Your task to perform on an android device: Empty the shopping cart on walmart. Search for "usb-c to usb-a" on walmart, select the first entry, add it to the cart, then select checkout. Image 0: 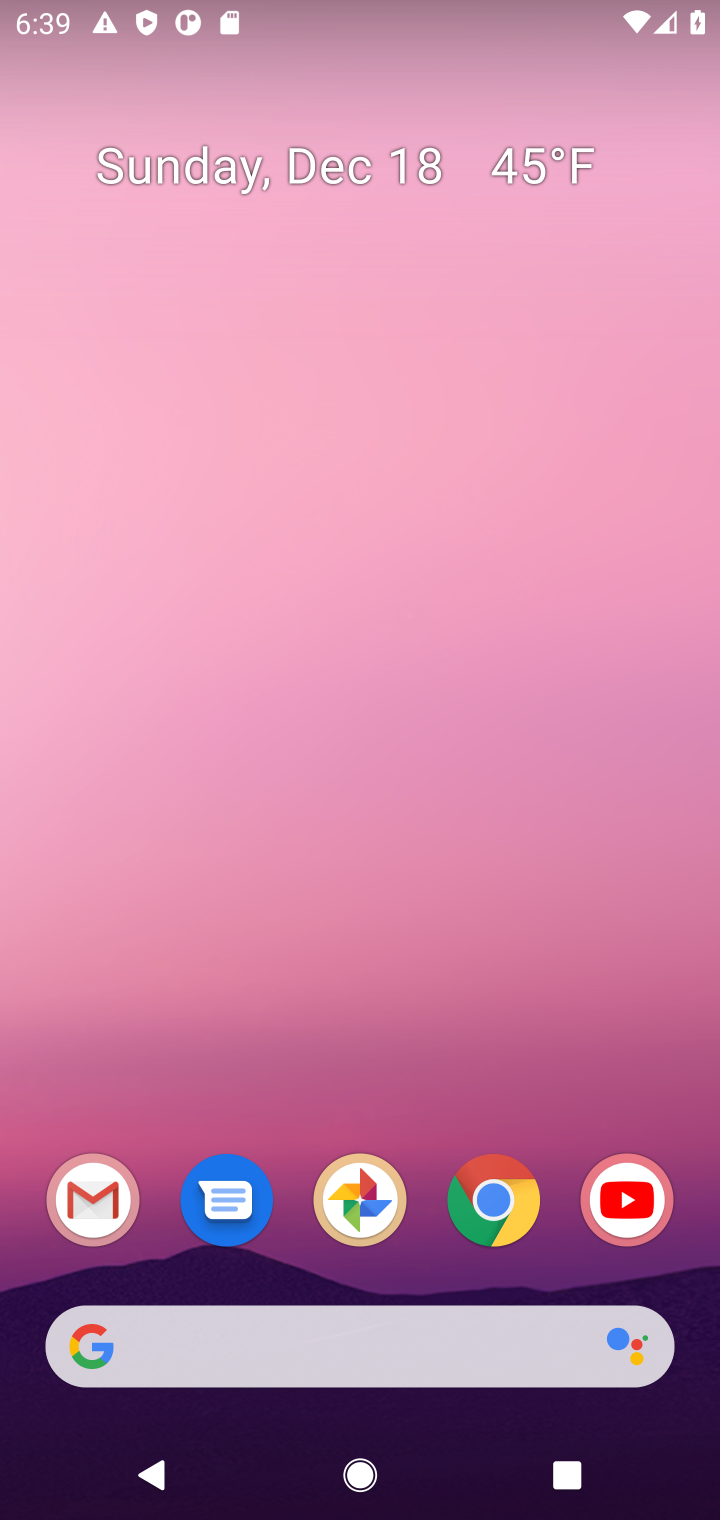
Step 0: click (499, 1207)
Your task to perform on an android device: Empty the shopping cart on walmart. Search for "usb-c to usb-a" on walmart, select the first entry, add it to the cart, then select checkout. Image 1: 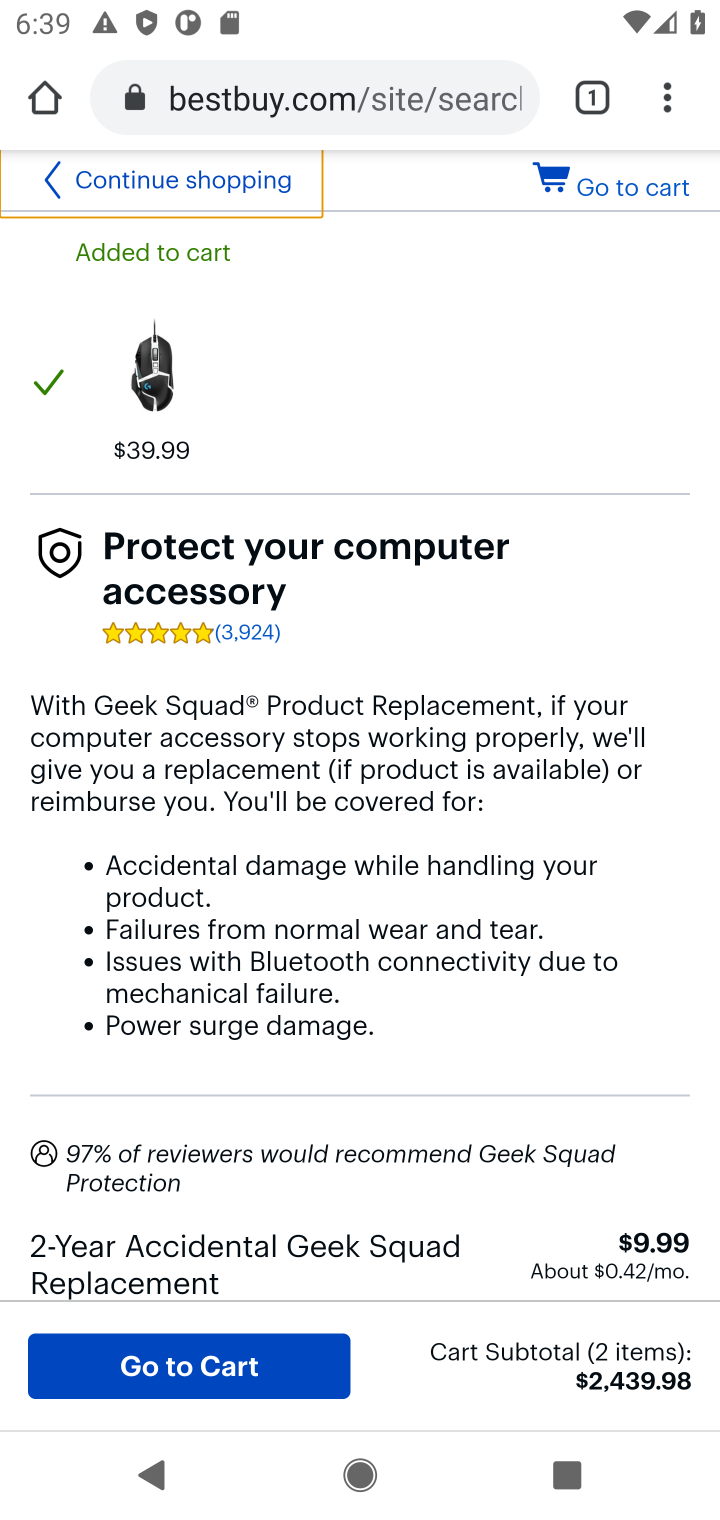
Step 1: click (240, 100)
Your task to perform on an android device: Empty the shopping cart on walmart. Search for "usb-c to usb-a" on walmart, select the first entry, add it to the cart, then select checkout. Image 2: 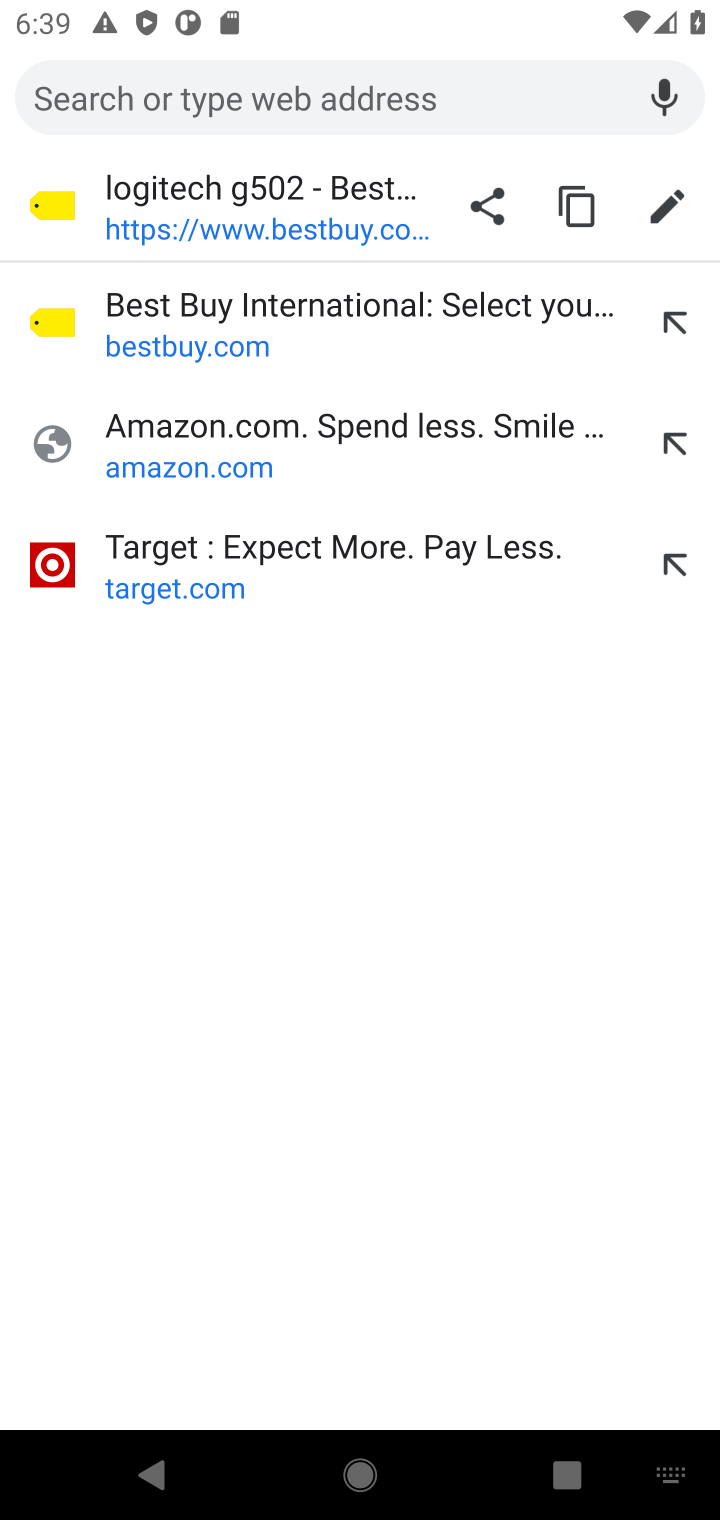
Step 2: type "walmart.com"
Your task to perform on an android device: Empty the shopping cart on walmart. Search for "usb-c to usb-a" on walmart, select the first entry, add it to the cart, then select checkout. Image 3: 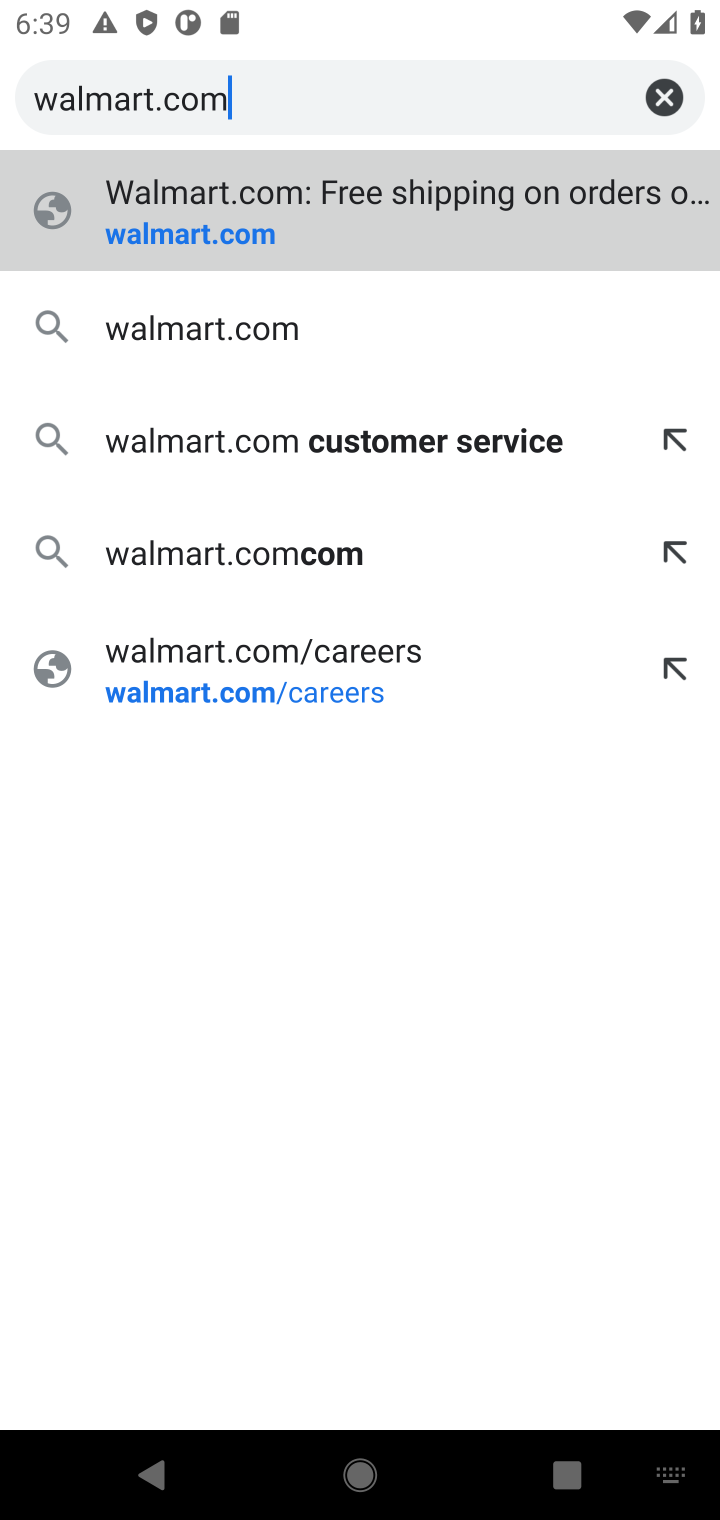
Step 3: click (134, 244)
Your task to perform on an android device: Empty the shopping cart on walmart. Search for "usb-c to usb-a" on walmart, select the first entry, add it to the cart, then select checkout. Image 4: 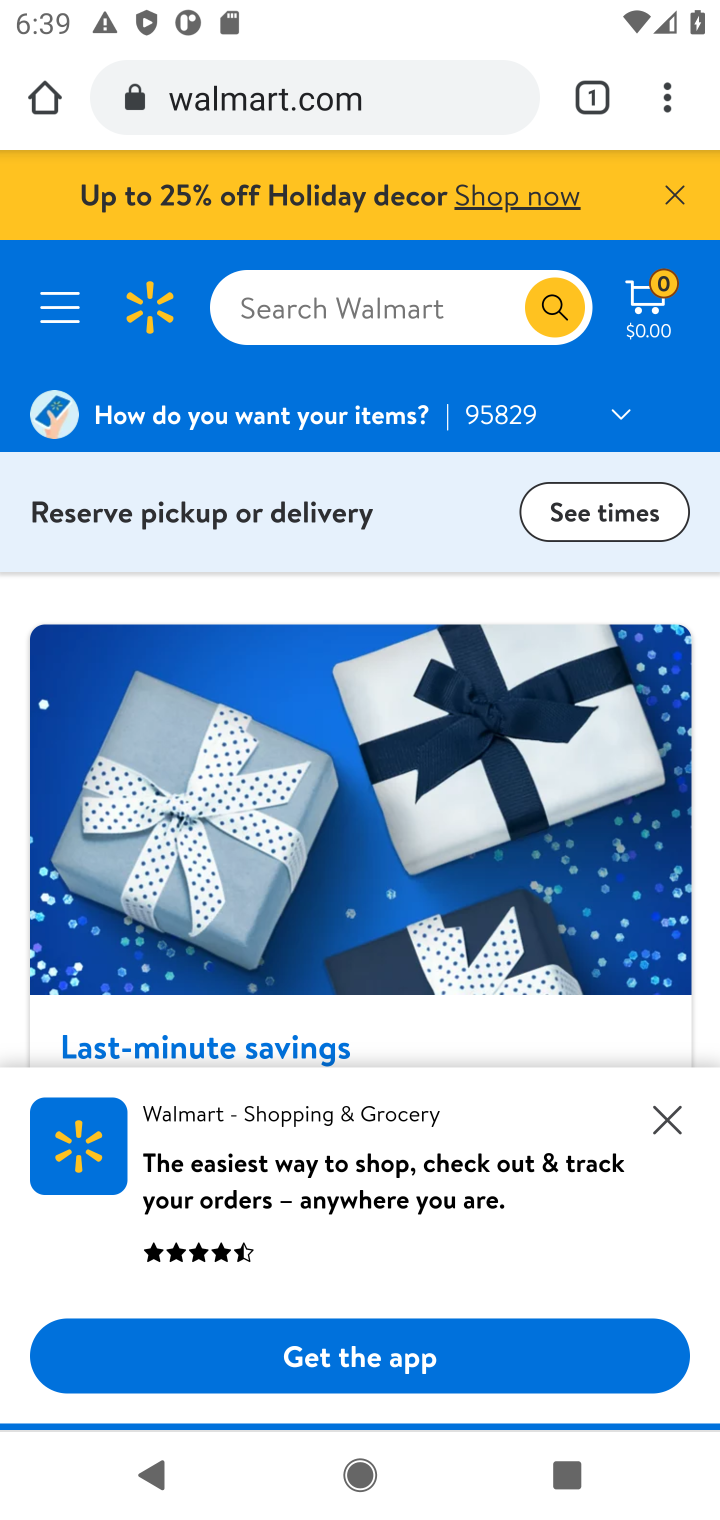
Step 4: click (645, 314)
Your task to perform on an android device: Empty the shopping cart on walmart. Search for "usb-c to usb-a" on walmart, select the first entry, add it to the cart, then select checkout. Image 5: 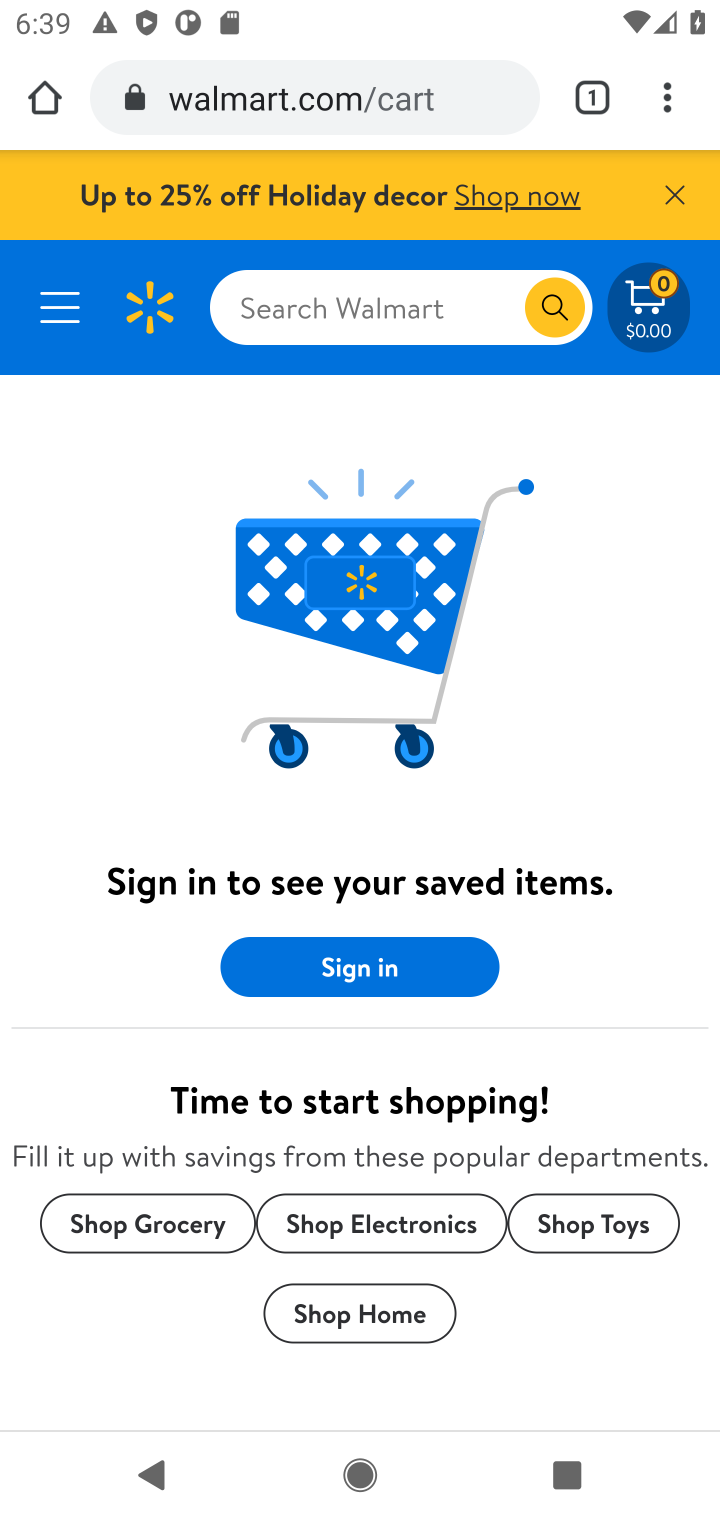
Step 5: click (275, 307)
Your task to perform on an android device: Empty the shopping cart on walmart. Search for "usb-c to usb-a" on walmart, select the first entry, add it to the cart, then select checkout. Image 6: 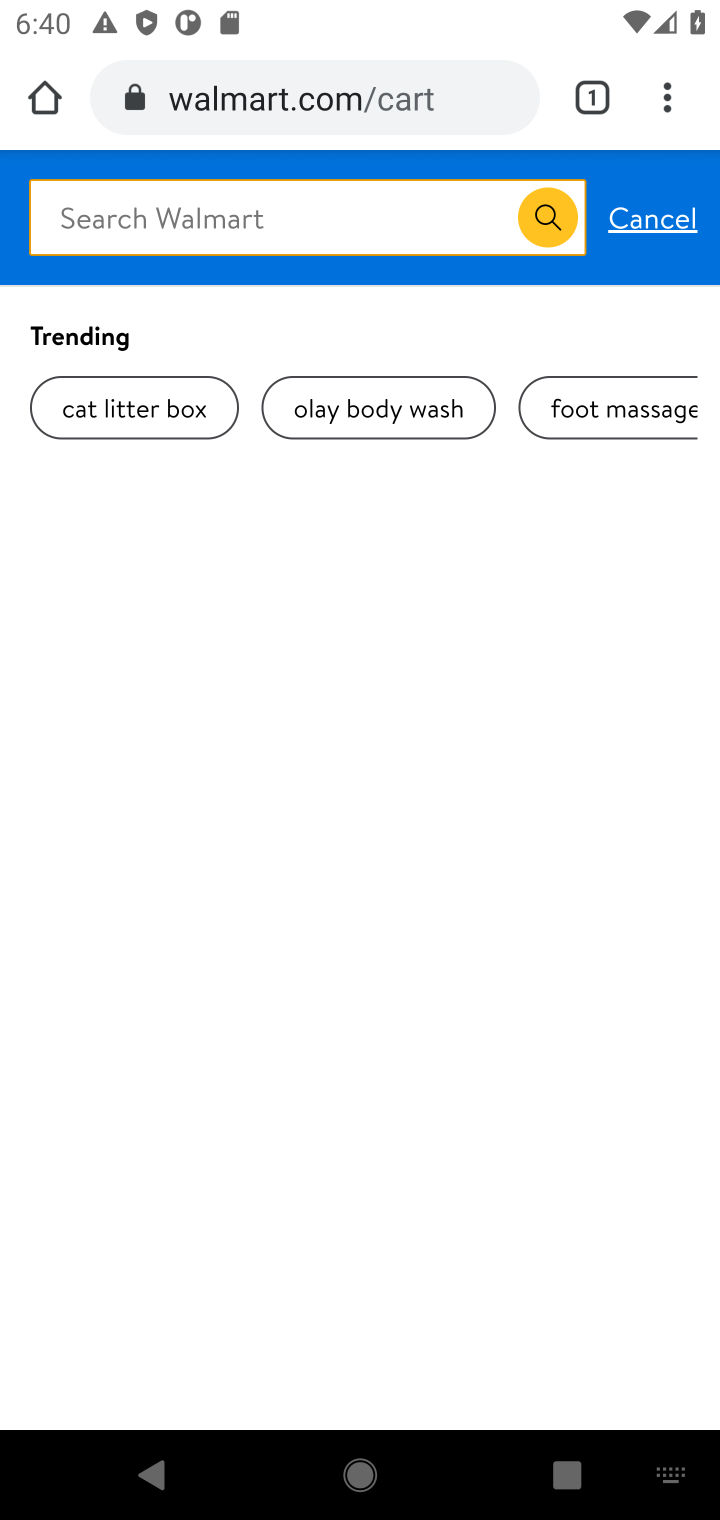
Step 6: type "usb-c to usb-a"
Your task to perform on an android device: Empty the shopping cart on walmart. Search for "usb-c to usb-a" on walmart, select the first entry, add it to the cart, then select checkout. Image 7: 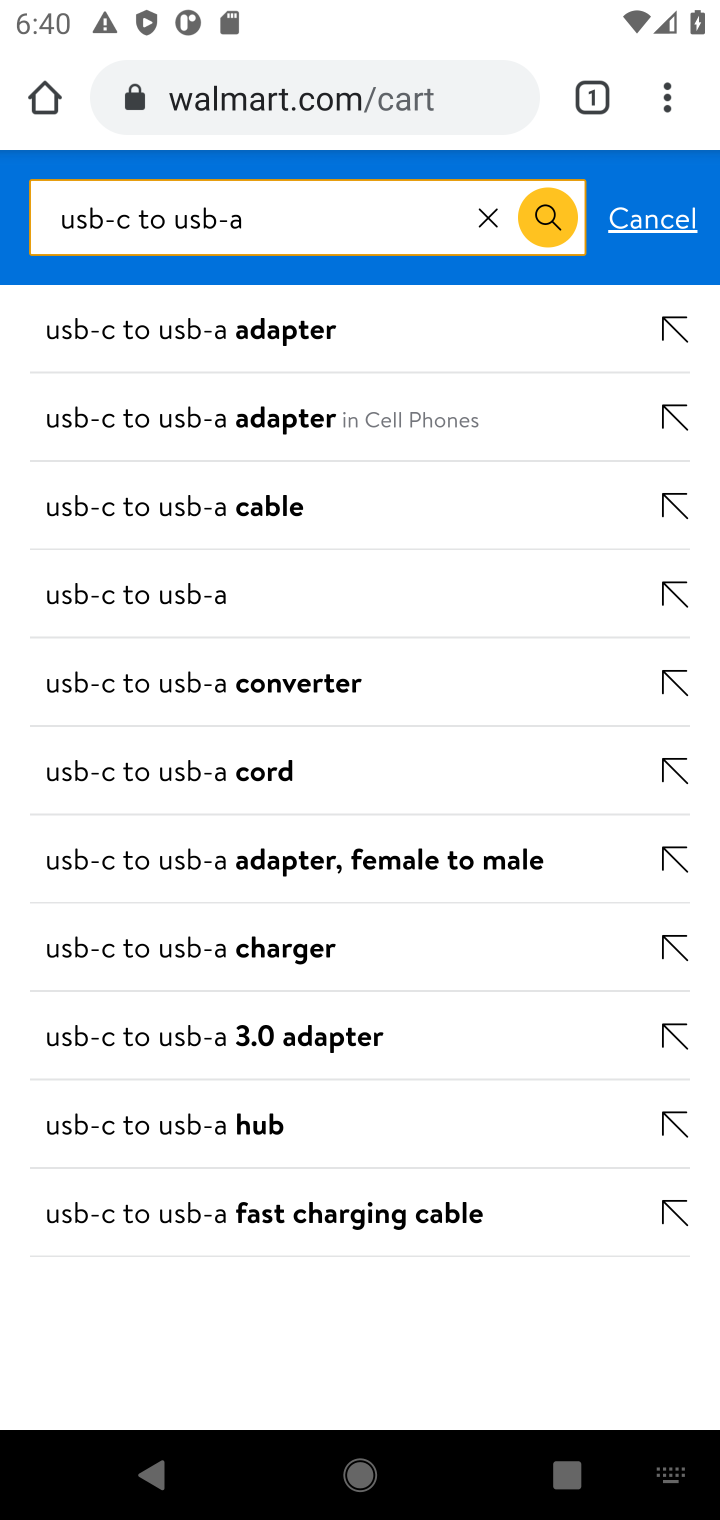
Step 7: click (171, 597)
Your task to perform on an android device: Empty the shopping cart on walmart. Search for "usb-c to usb-a" on walmart, select the first entry, add it to the cart, then select checkout. Image 8: 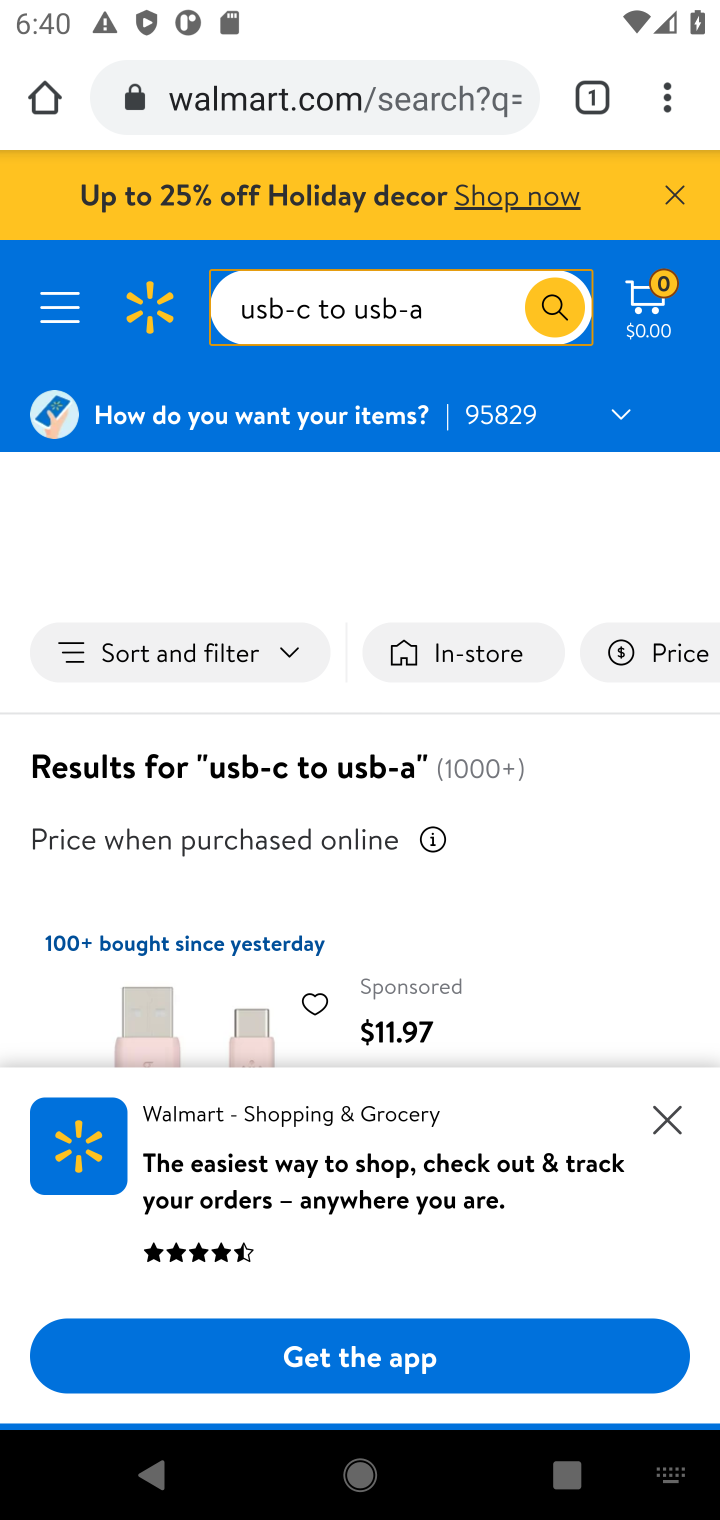
Step 8: drag from (444, 920) to (430, 441)
Your task to perform on an android device: Empty the shopping cart on walmart. Search for "usb-c to usb-a" on walmart, select the first entry, add it to the cart, then select checkout. Image 9: 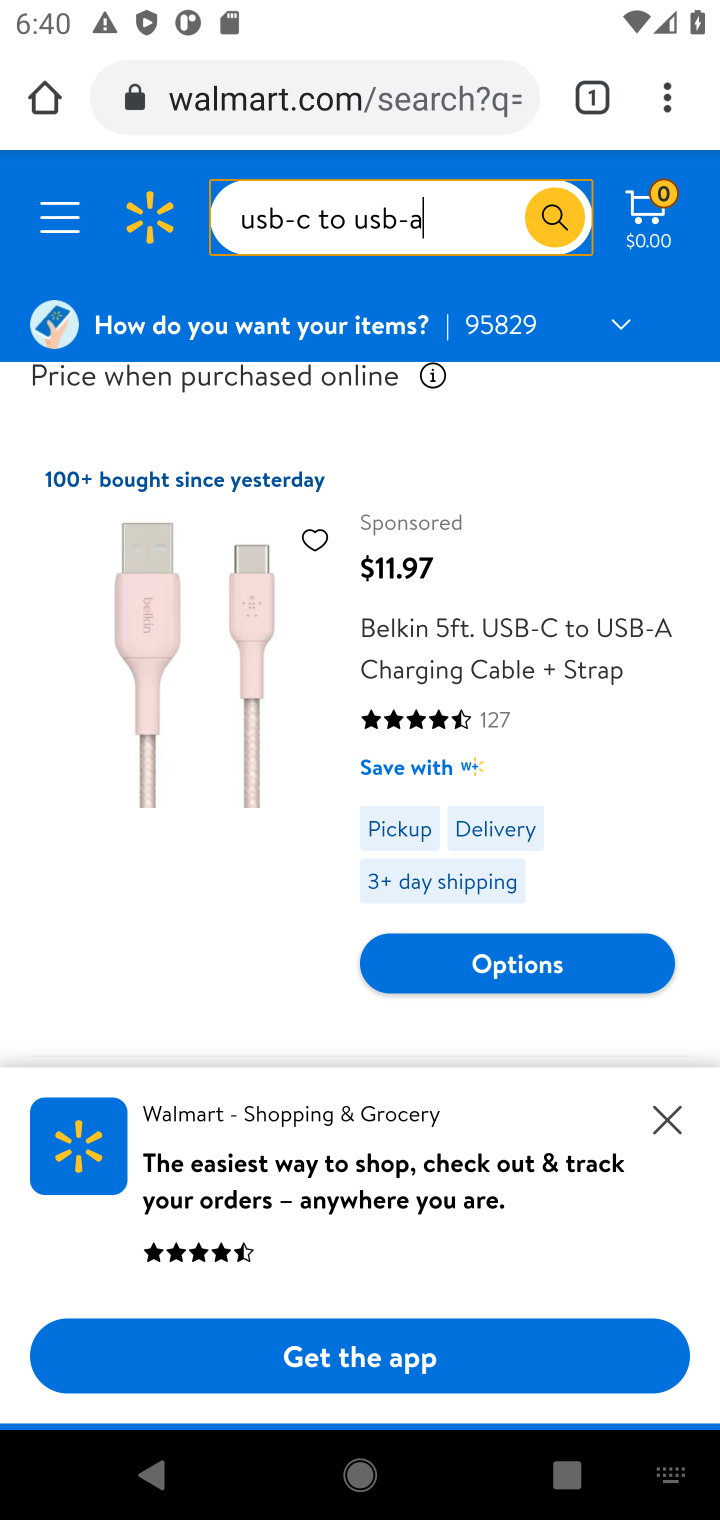
Step 9: click (414, 646)
Your task to perform on an android device: Empty the shopping cart on walmart. Search for "usb-c to usb-a" on walmart, select the first entry, add it to the cart, then select checkout. Image 10: 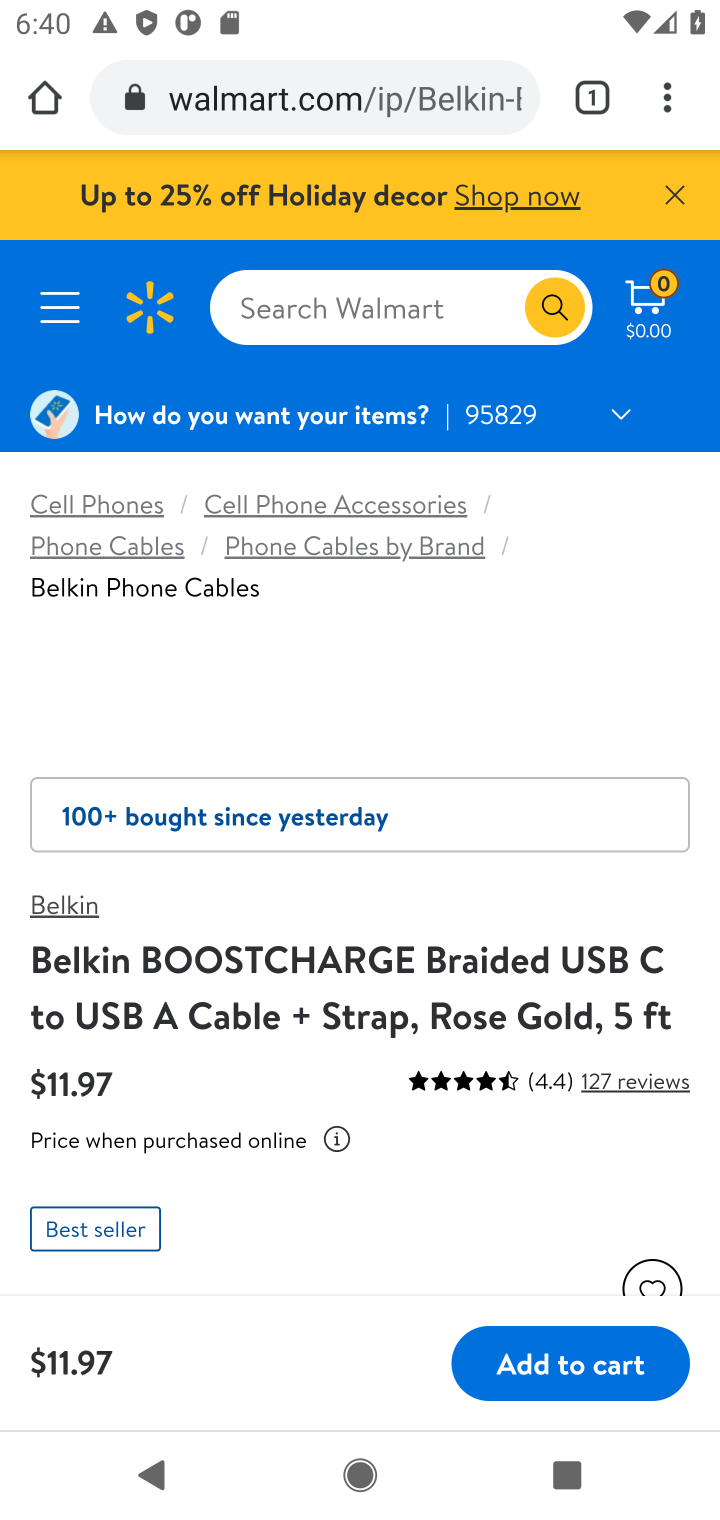
Step 10: click (570, 1376)
Your task to perform on an android device: Empty the shopping cart on walmart. Search for "usb-c to usb-a" on walmart, select the first entry, add it to the cart, then select checkout. Image 11: 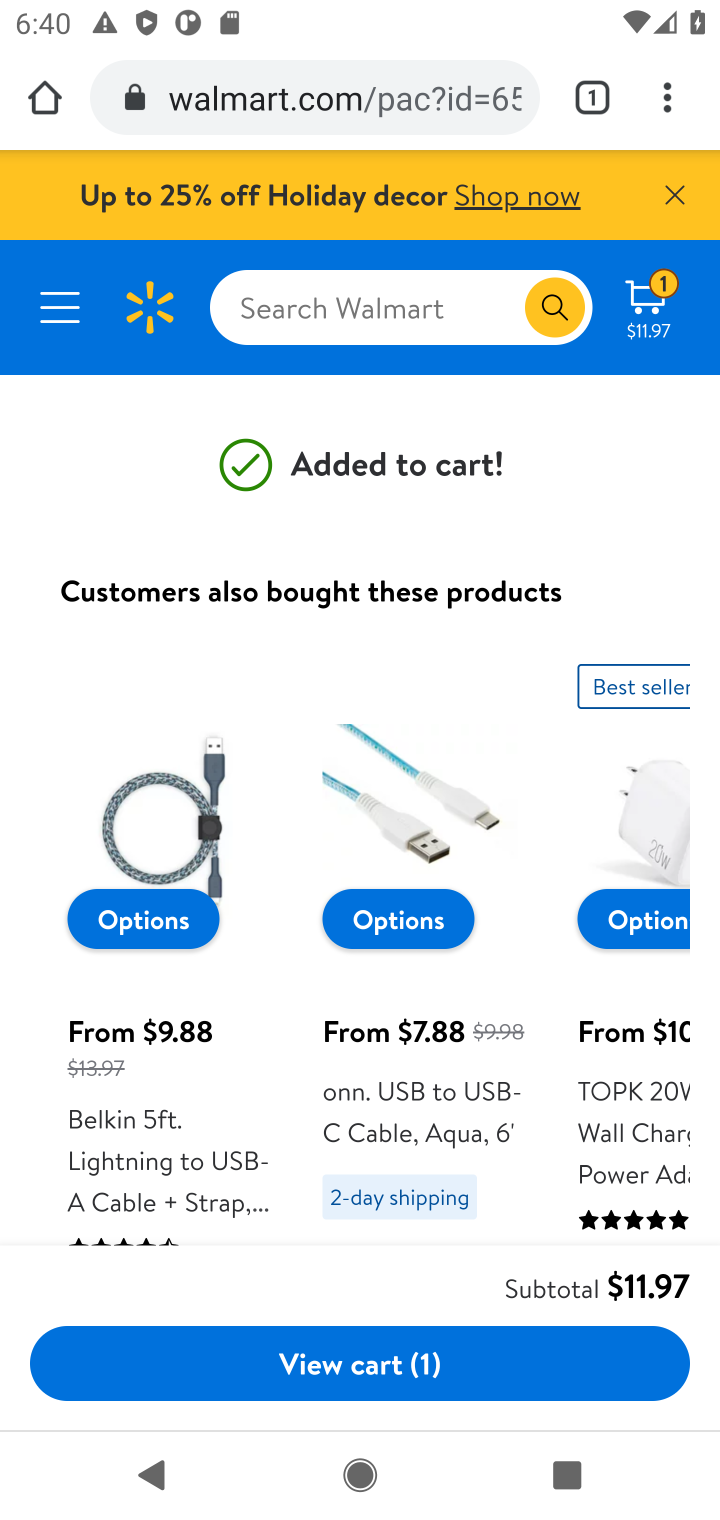
Step 11: click (364, 1358)
Your task to perform on an android device: Empty the shopping cart on walmart. Search for "usb-c to usb-a" on walmart, select the first entry, add it to the cart, then select checkout. Image 12: 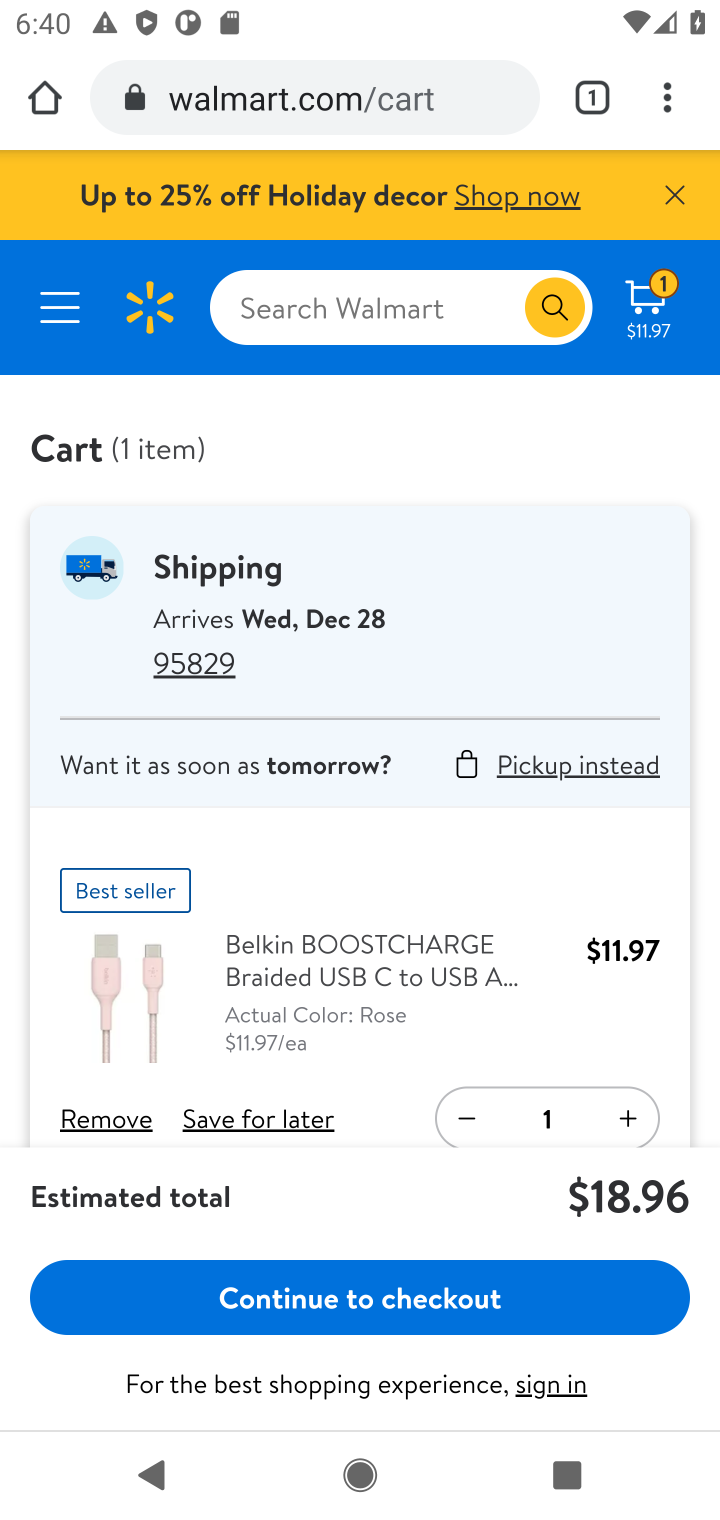
Step 12: click (360, 1303)
Your task to perform on an android device: Empty the shopping cart on walmart. Search for "usb-c to usb-a" on walmart, select the first entry, add it to the cart, then select checkout. Image 13: 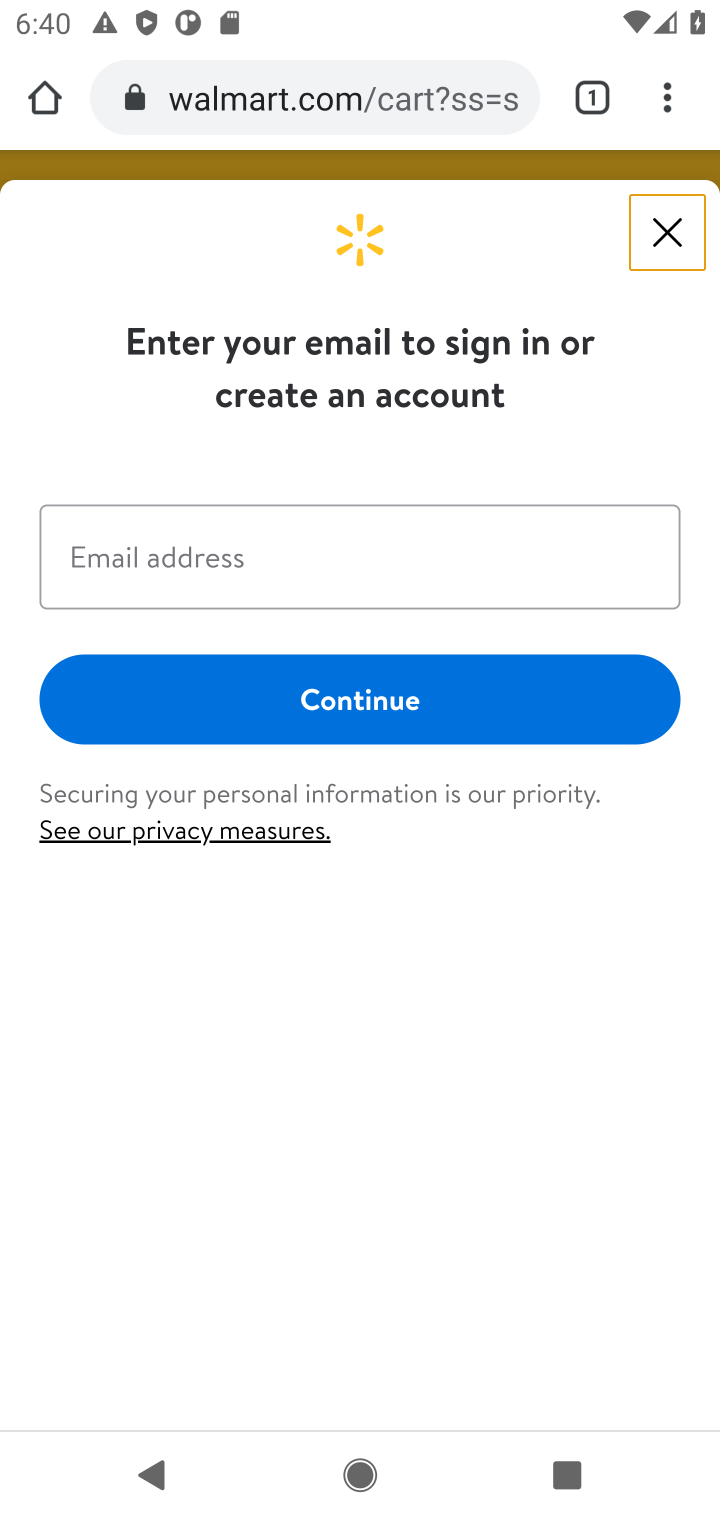
Step 13: task complete